Your task to perform on an android device: Show me popular games on the Play Store Image 0: 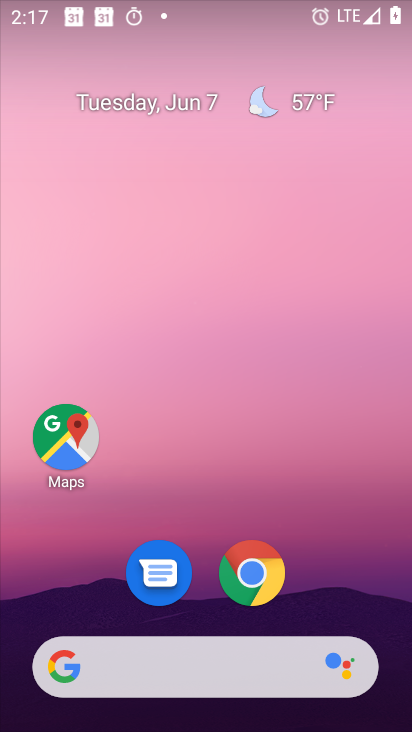
Step 0: press home button
Your task to perform on an android device: Show me popular games on the Play Store Image 1: 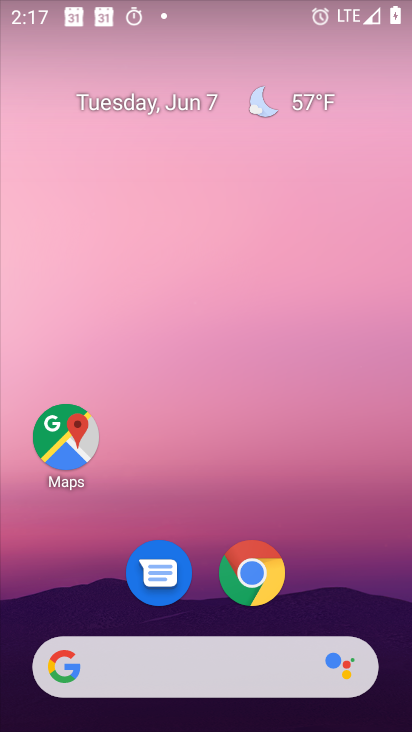
Step 1: drag from (372, 627) to (313, 71)
Your task to perform on an android device: Show me popular games on the Play Store Image 2: 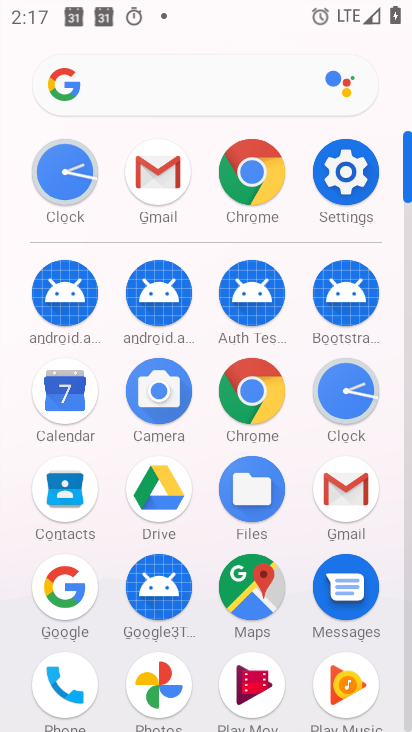
Step 2: drag from (167, 593) to (142, 294)
Your task to perform on an android device: Show me popular games on the Play Store Image 3: 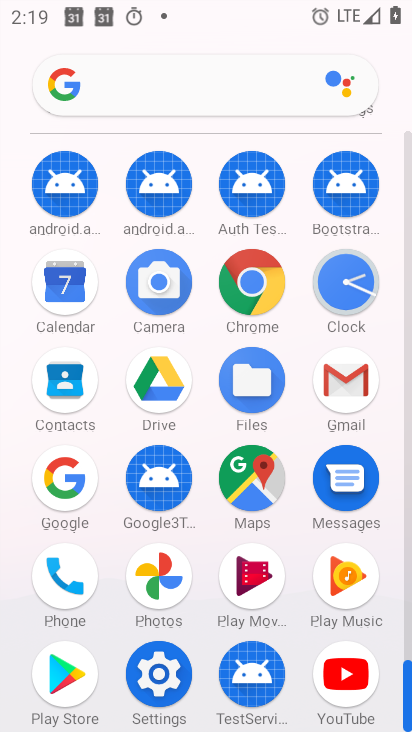
Step 3: click (52, 660)
Your task to perform on an android device: Show me popular games on the Play Store Image 4: 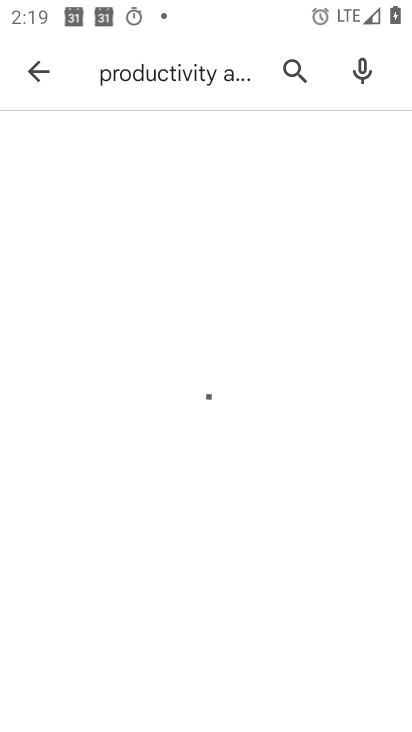
Step 4: click (166, 68)
Your task to perform on an android device: Show me popular games on the Play Store Image 5: 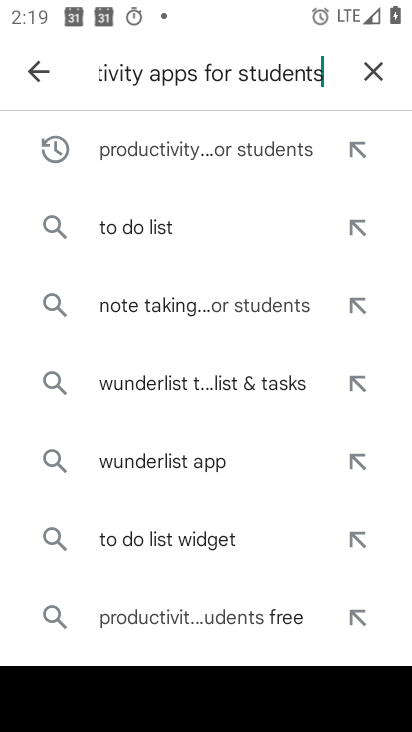
Step 5: click (386, 74)
Your task to perform on an android device: Show me popular games on the Play Store Image 6: 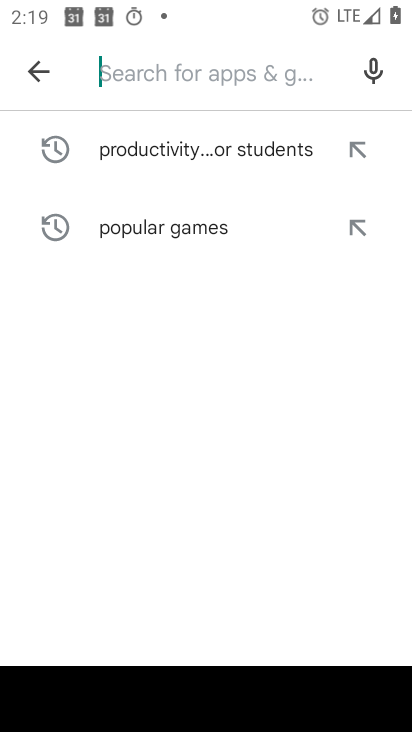
Step 6: type " popular games"
Your task to perform on an android device: Show me popular games on the Play Store Image 7: 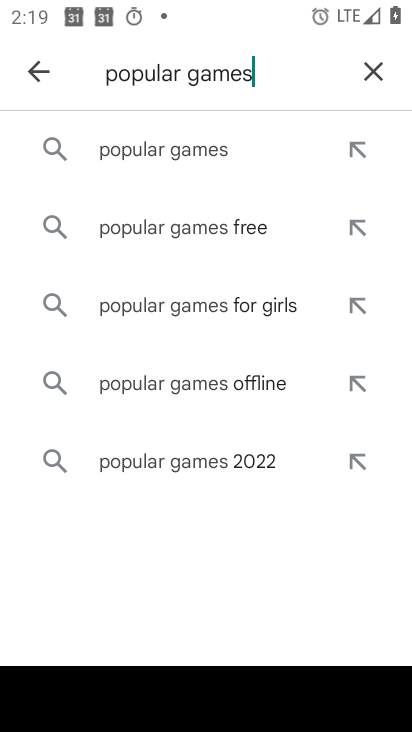
Step 7: click (189, 152)
Your task to perform on an android device: Show me popular games on the Play Store Image 8: 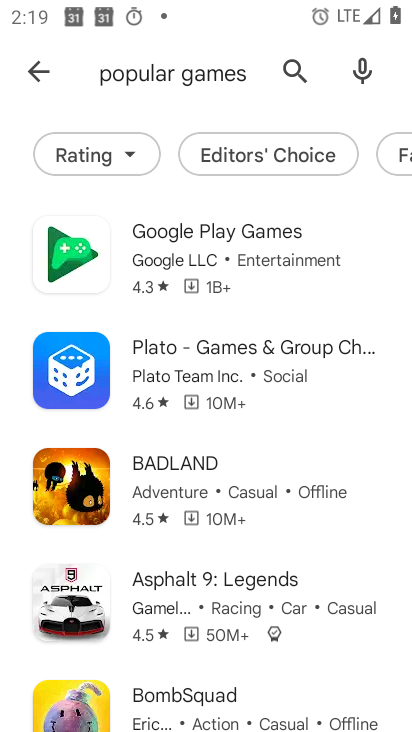
Step 8: task complete